Your task to perform on an android device: Add "usb-c to usb-a" to the cart on amazon.com, then select checkout. Image 0: 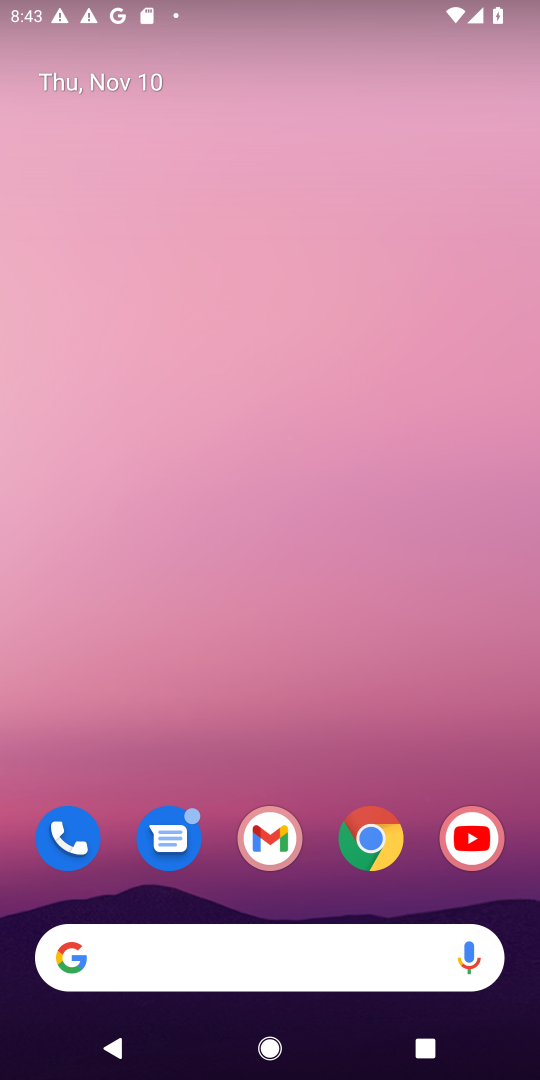
Step 0: drag from (311, 904) to (363, 205)
Your task to perform on an android device: Add "usb-c to usb-a" to the cart on amazon.com, then select checkout. Image 1: 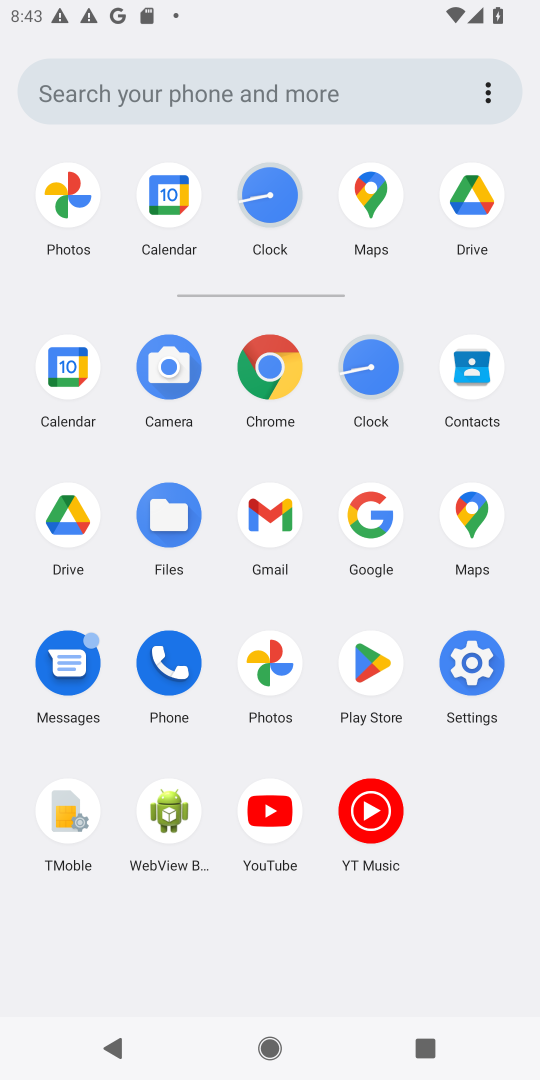
Step 1: click (277, 364)
Your task to perform on an android device: Add "usb-c to usb-a" to the cart on amazon.com, then select checkout. Image 2: 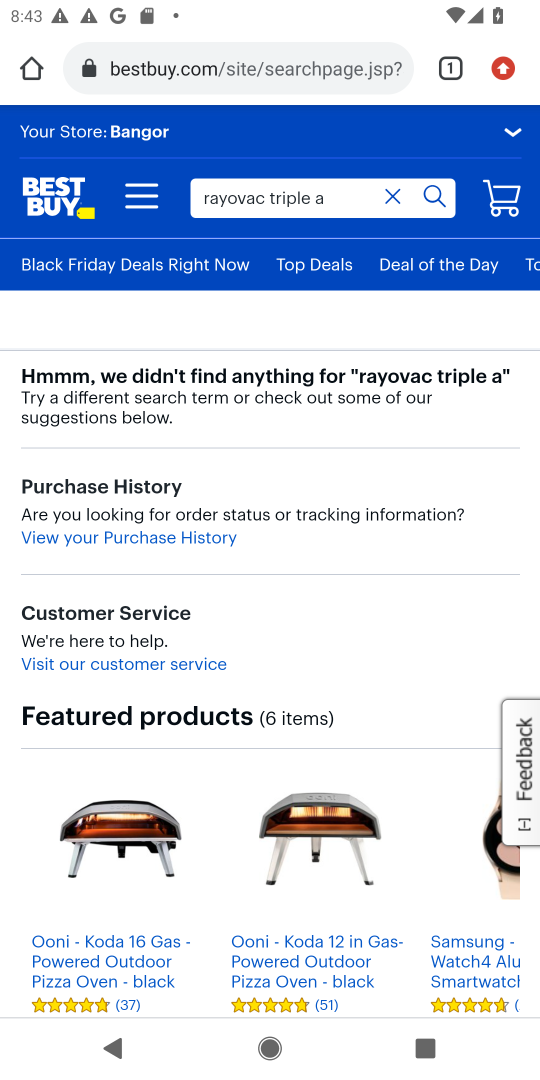
Step 2: click (288, 58)
Your task to perform on an android device: Add "usb-c to usb-a" to the cart on amazon.com, then select checkout. Image 3: 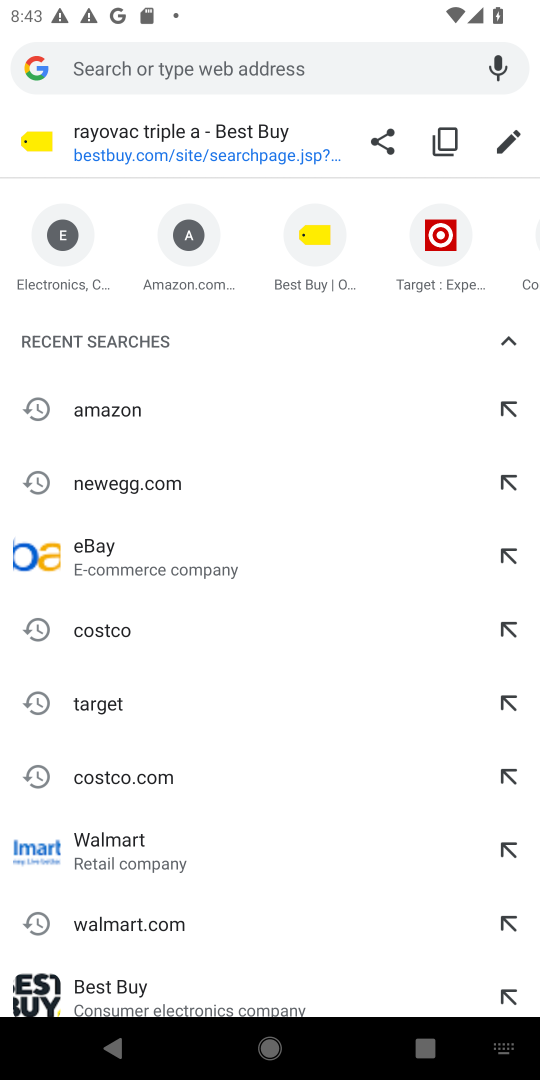
Step 3: type "amazon.com"
Your task to perform on an android device: Add "usb-c to usb-a" to the cart on amazon.com, then select checkout. Image 4: 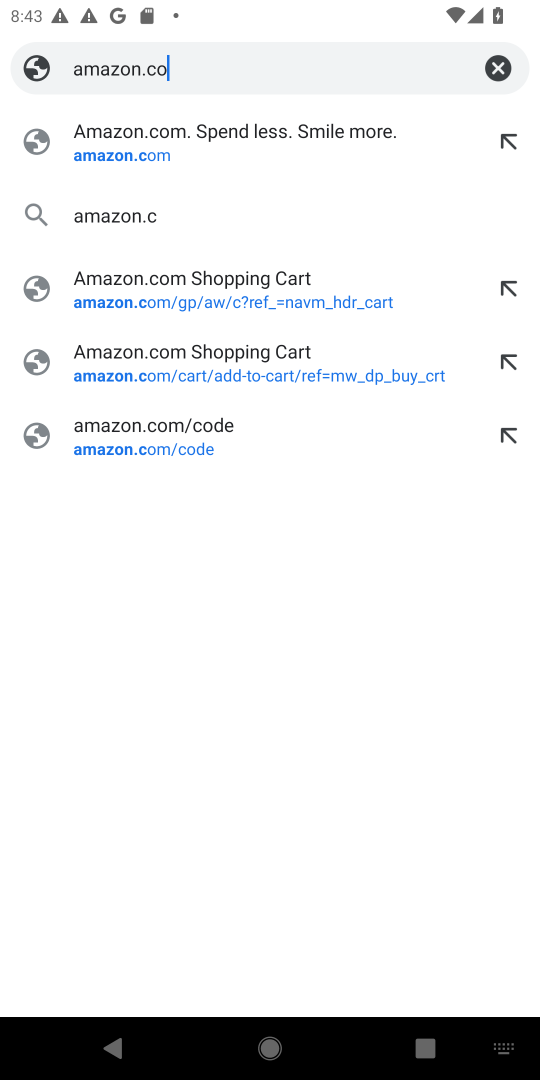
Step 4: press enter
Your task to perform on an android device: Add "usb-c to usb-a" to the cart on amazon.com, then select checkout. Image 5: 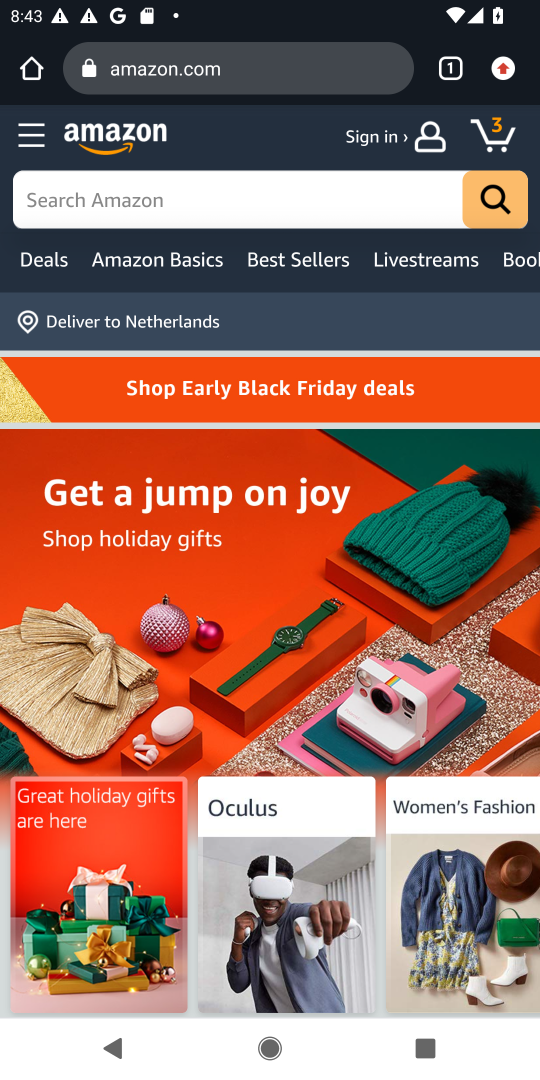
Step 5: click (212, 195)
Your task to perform on an android device: Add "usb-c to usb-a" to the cart on amazon.com, then select checkout. Image 6: 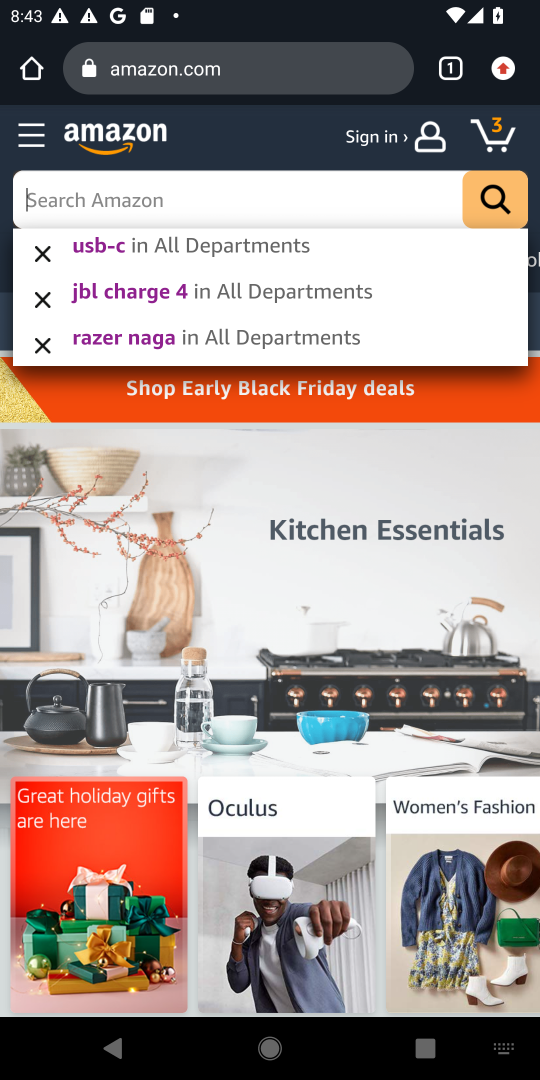
Step 6: type "usb-c to usb-a"
Your task to perform on an android device: Add "usb-c to usb-a" to the cart on amazon.com, then select checkout. Image 7: 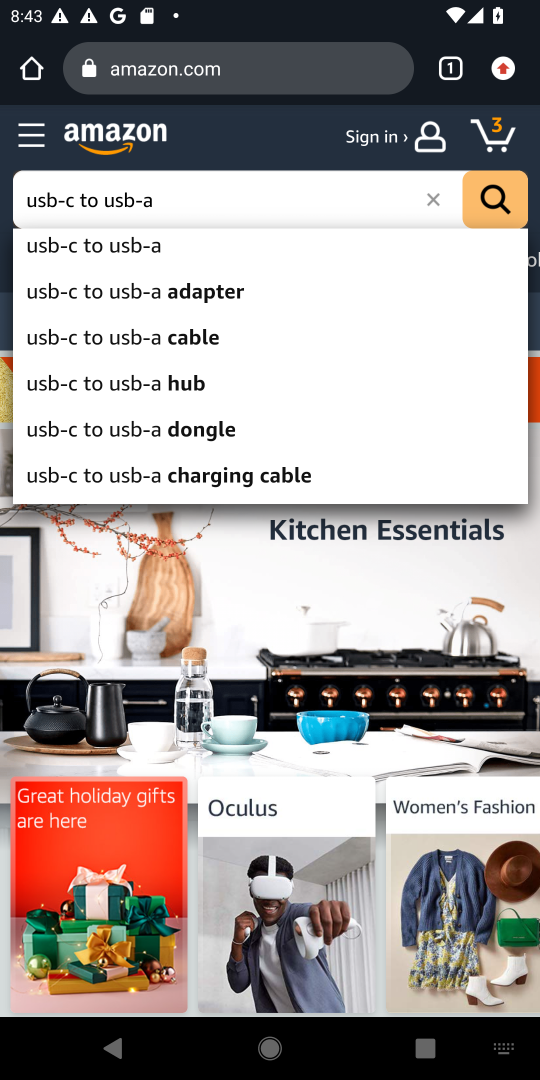
Step 7: press enter
Your task to perform on an android device: Add "usb-c to usb-a" to the cart on amazon.com, then select checkout. Image 8: 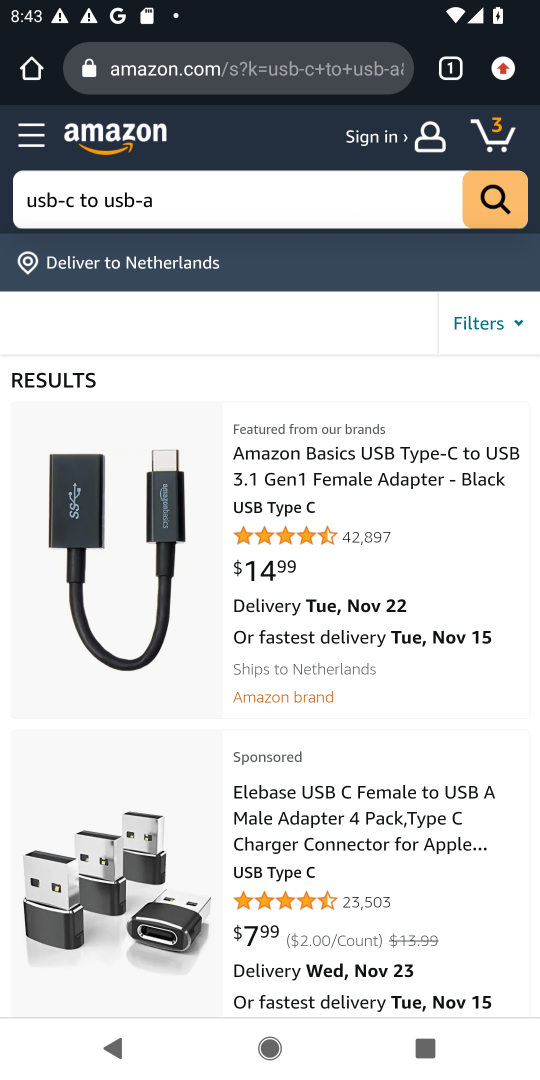
Step 8: drag from (245, 905) to (279, 255)
Your task to perform on an android device: Add "usb-c to usb-a" to the cart on amazon.com, then select checkout. Image 9: 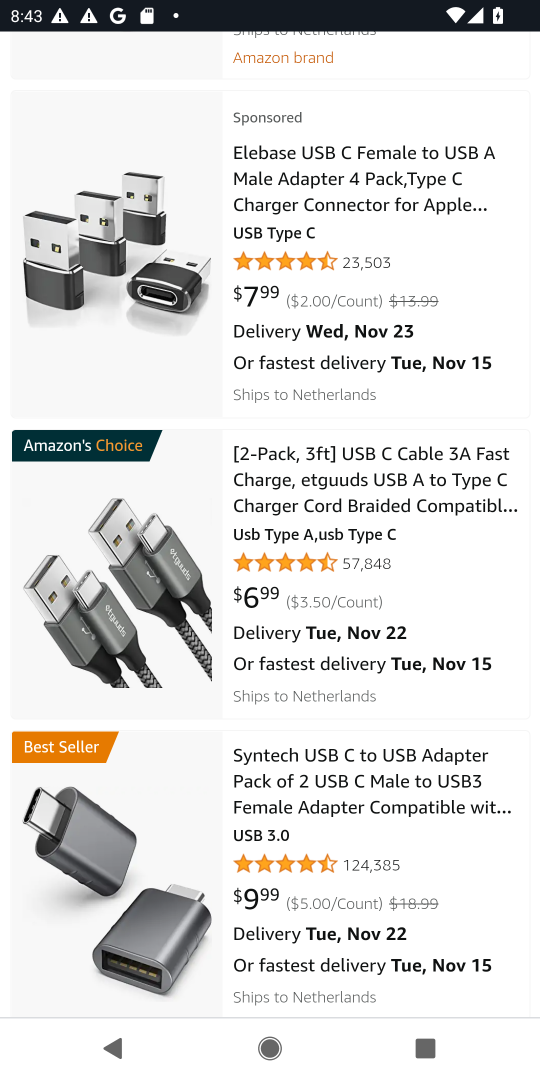
Step 9: click (328, 487)
Your task to perform on an android device: Add "usb-c to usb-a" to the cart on amazon.com, then select checkout. Image 10: 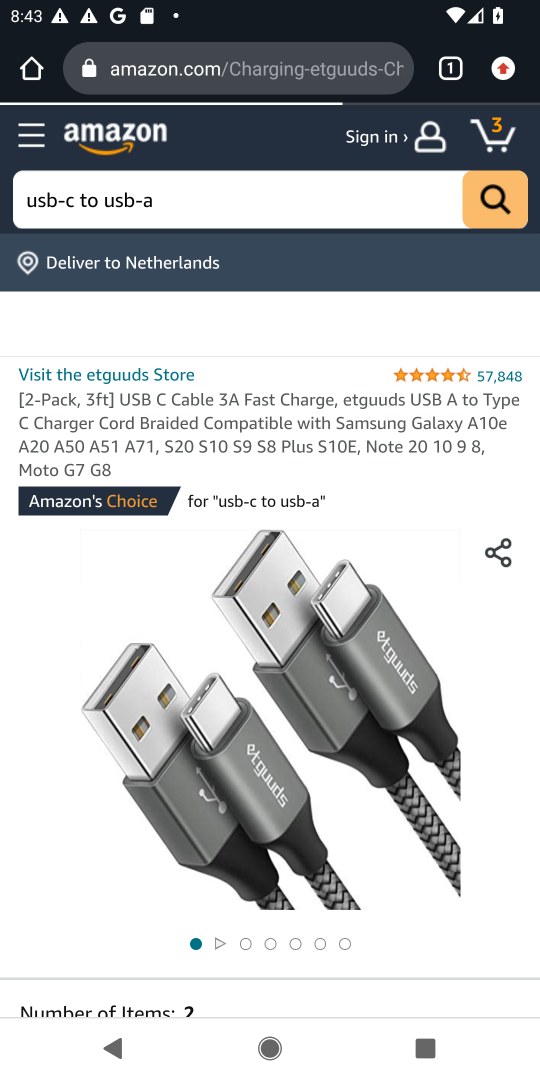
Step 10: drag from (338, 831) to (331, 158)
Your task to perform on an android device: Add "usb-c to usb-a" to the cart on amazon.com, then select checkout. Image 11: 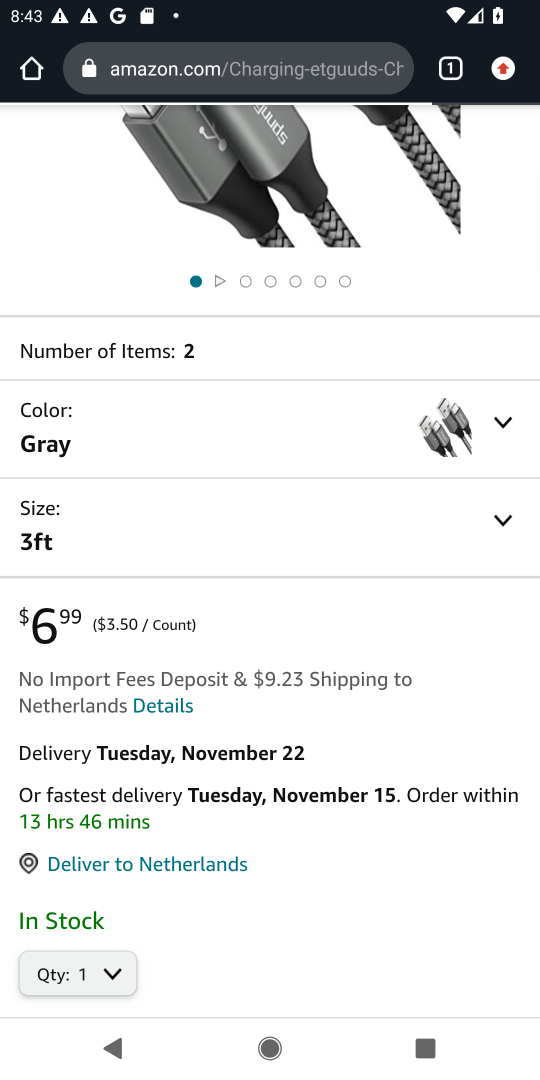
Step 11: drag from (371, 813) to (313, 186)
Your task to perform on an android device: Add "usb-c to usb-a" to the cart on amazon.com, then select checkout. Image 12: 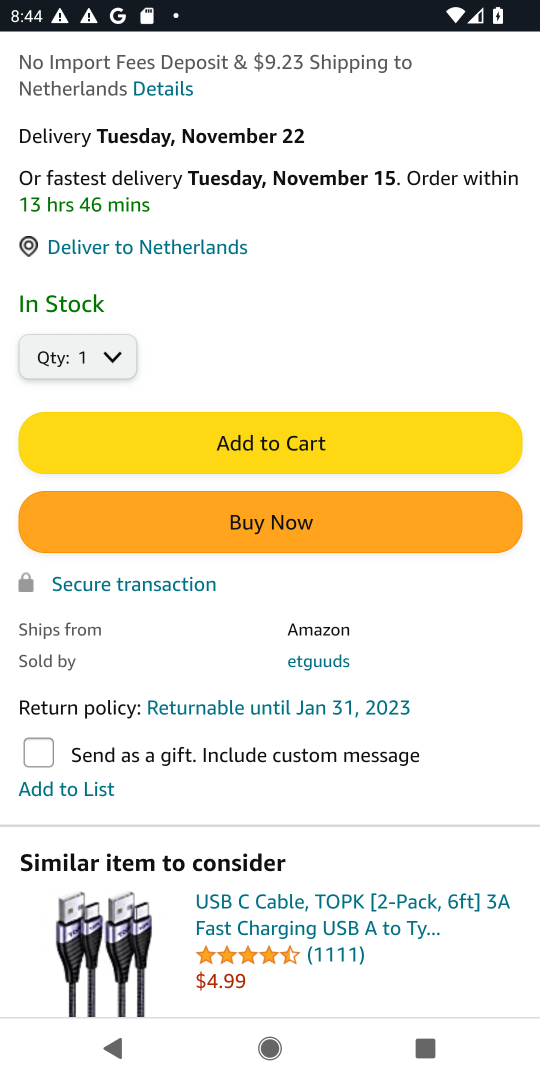
Step 12: drag from (368, 142) to (348, 293)
Your task to perform on an android device: Add "usb-c to usb-a" to the cart on amazon.com, then select checkout. Image 13: 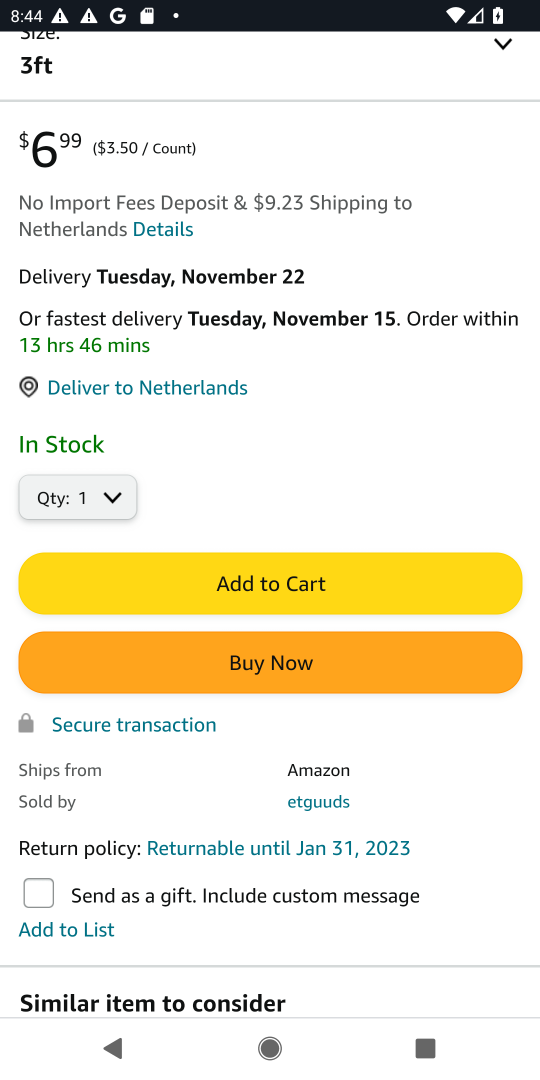
Step 13: drag from (309, 172) to (286, 1049)
Your task to perform on an android device: Add "usb-c to usb-a" to the cart on amazon.com, then select checkout. Image 14: 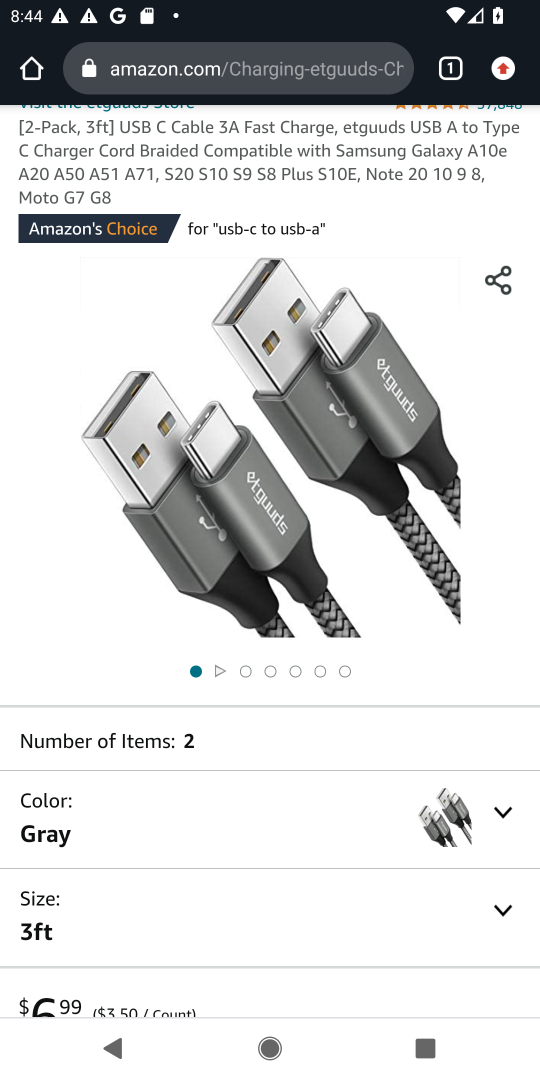
Step 14: drag from (301, 719) to (310, 151)
Your task to perform on an android device: Add "usb-c to usb-a" to the cart on amazon.com, then select checkout. Image 15: 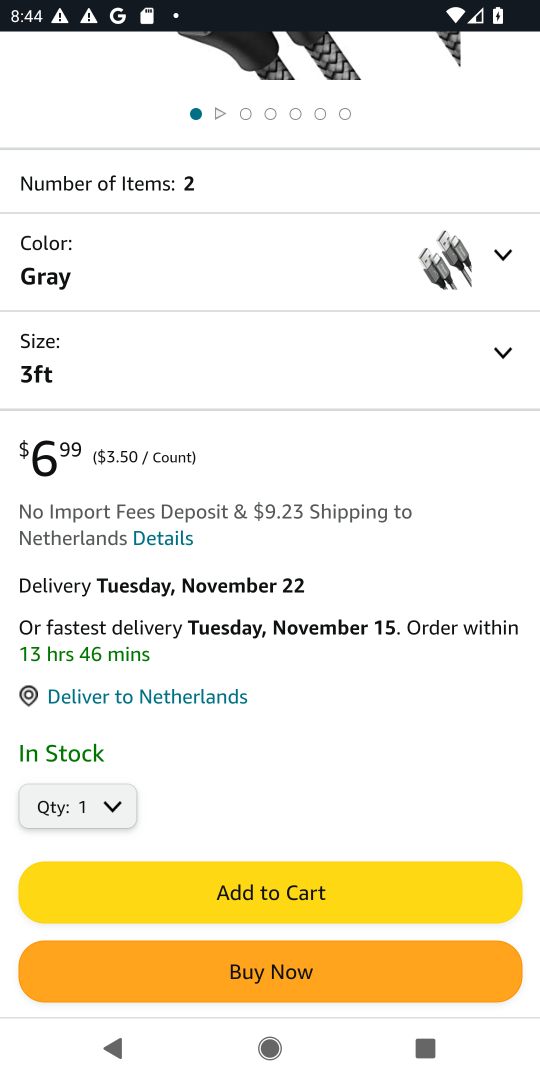
Step 15: click (313, 889)
Your task to perform on an android device: Add "usb-c to usb-a" to the cart on amazon.com, then select checkout. Image 16: 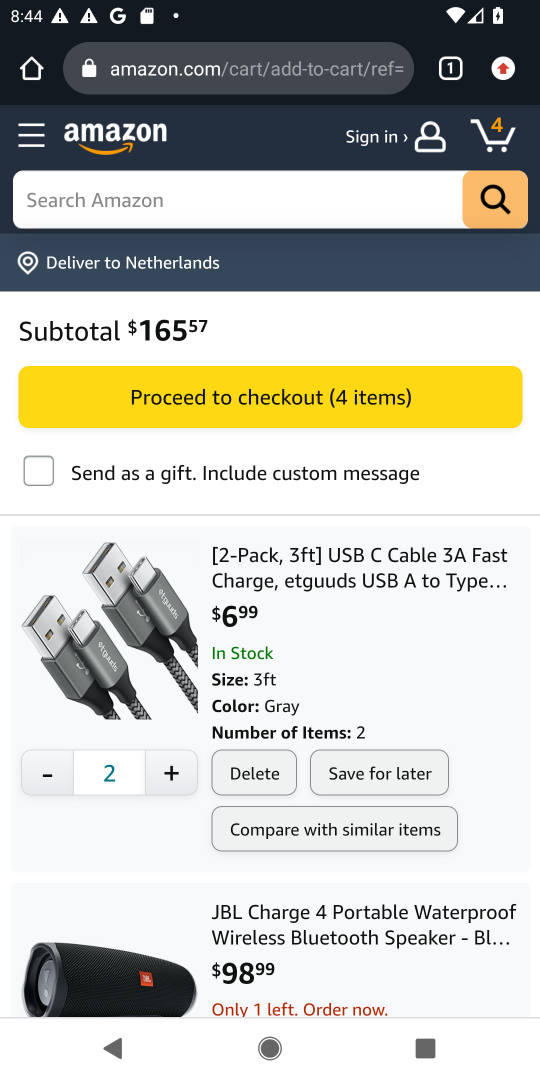
Step 16: task complete